Your task to perform on an android device: delete location history Image 0: 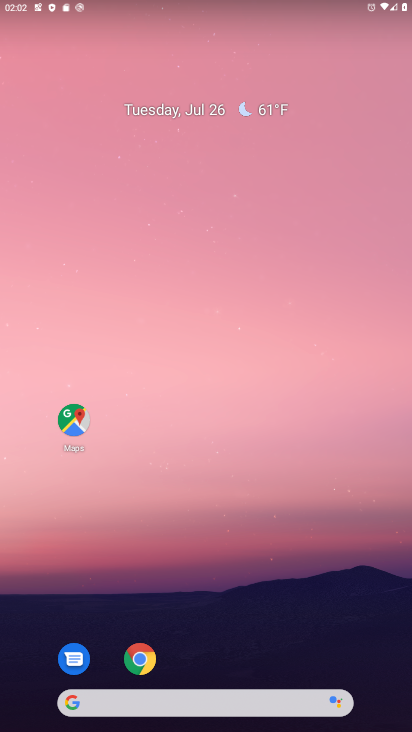
Step 0: drag from (300, 616) to (172, 149)
Your task to perform on an android device: delete location history Image 1: 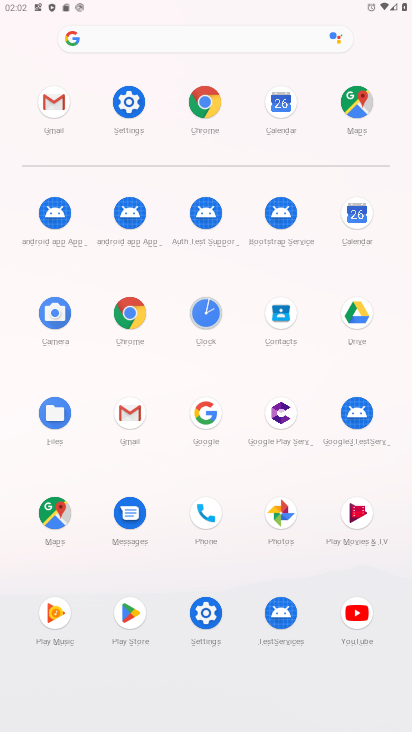
Step 1: click (362, 106)
Your task to perform on an android device: delete location history Image 2: 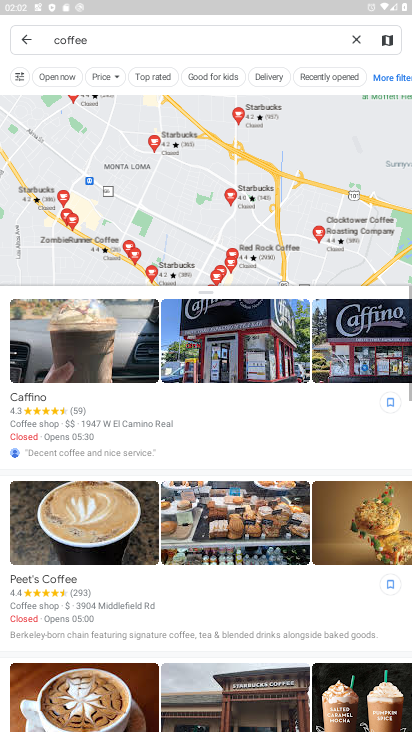
Step 2: click (19, 40)
Your task to perform on an android device: delete location history Image 3: 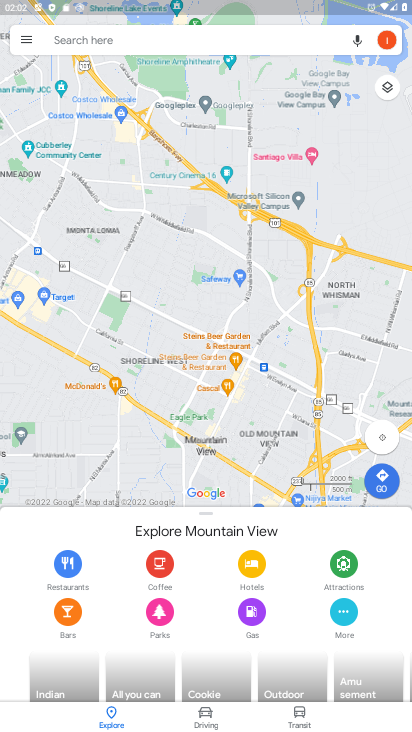
Step 3: click (30, 37)
Your task to perform on an android device: delete location history Image 4: 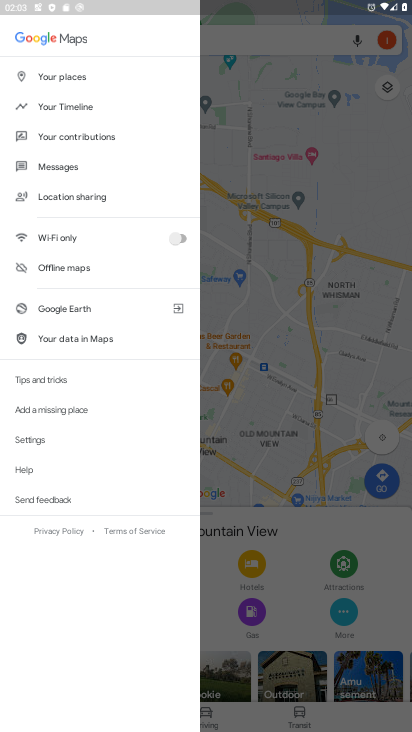
Step 4: click (25, 439)
Your task to perform on an android device: delete location history Image 5: 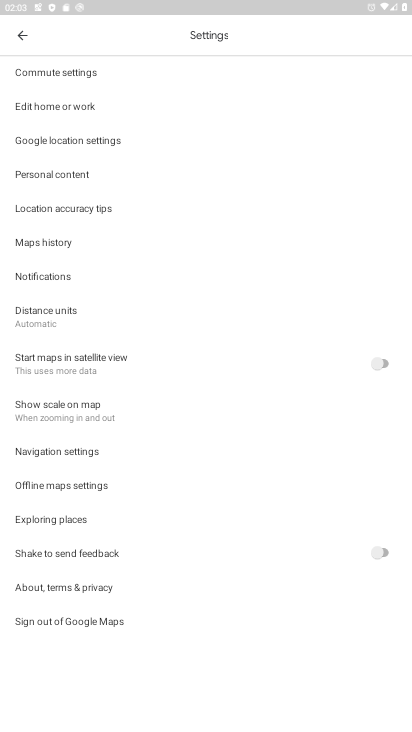
Step 5: click (58, 241)
Your task to perform on an android device: delete location history Image 6: 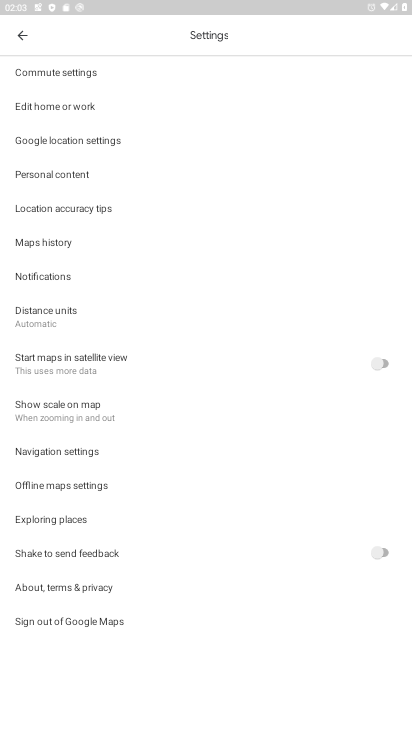
Step 6: click (66, 239)
Your task to perform on an android device: delete location history Image 7: 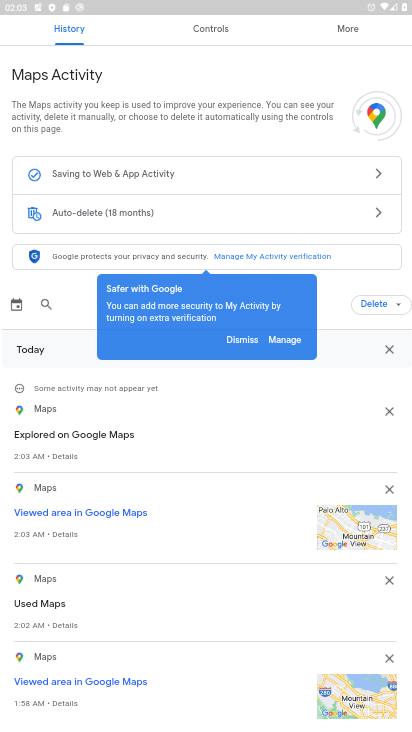
Step 7: click (397, 304)
Your task to perform on an android device: delete location history Image 8: 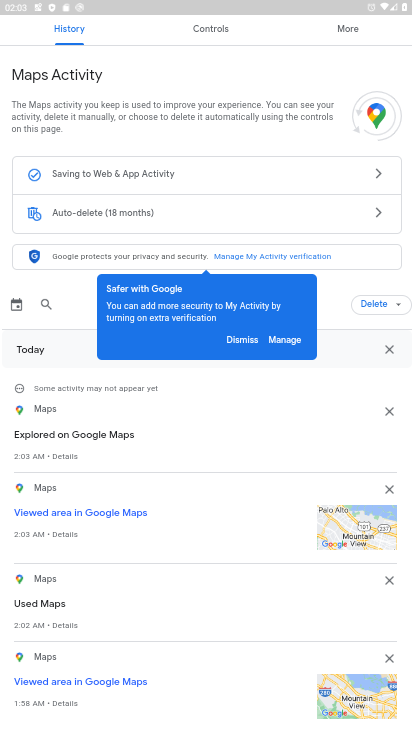
Step 8: click (238, 347)
Your task to perform on an android device: delete location history Image 9: 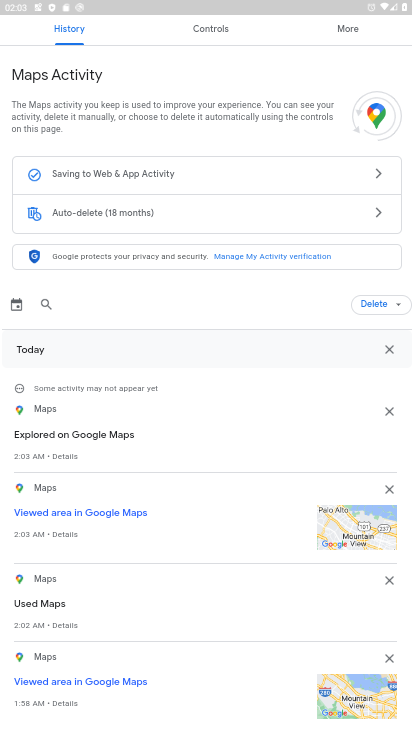
Step 9: click (389, 303)
Your task to perform on an android device: delete location history Image 10: 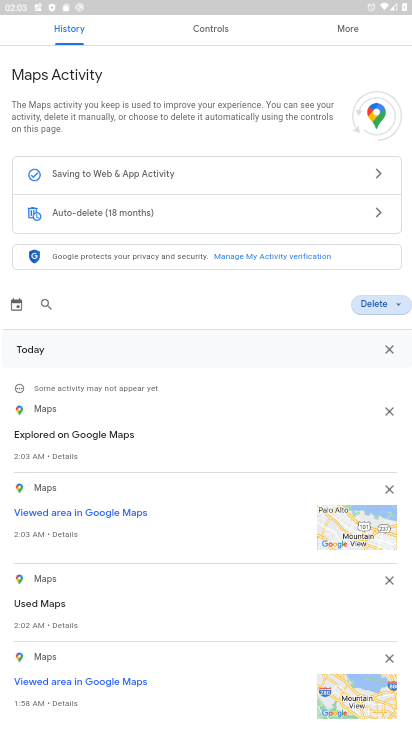
Step 10: click (397, 303)
Your task to perform on an android device: delete location history Image 11: 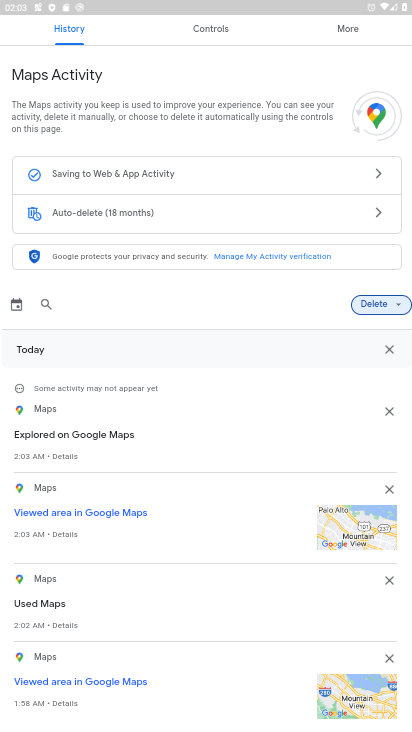
Step 11: click (400, 306)
Your task to perform on an android device: delete location history Image 12: 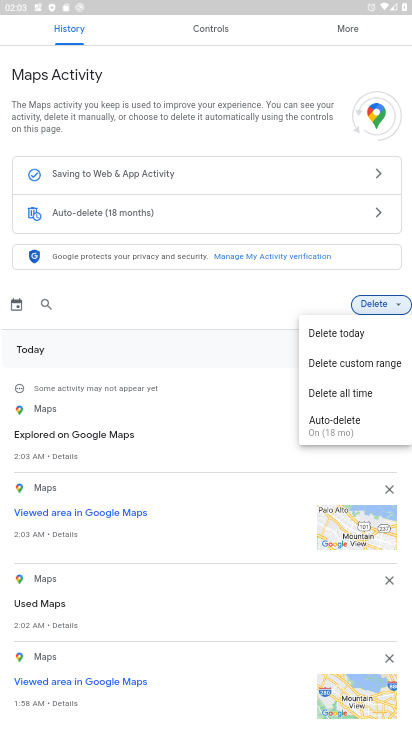
Step 12: click (336, 387)
Your task to perform on an android device: delete location history Image 13: 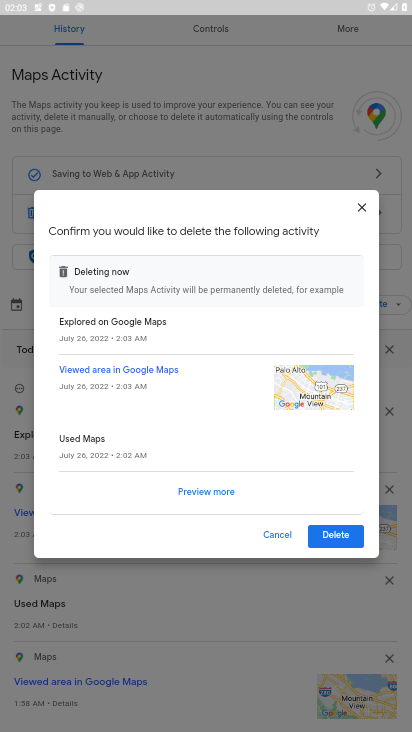
Step 13: click (338, 540)
Your task to perform on an android device: delete location history Image 14: 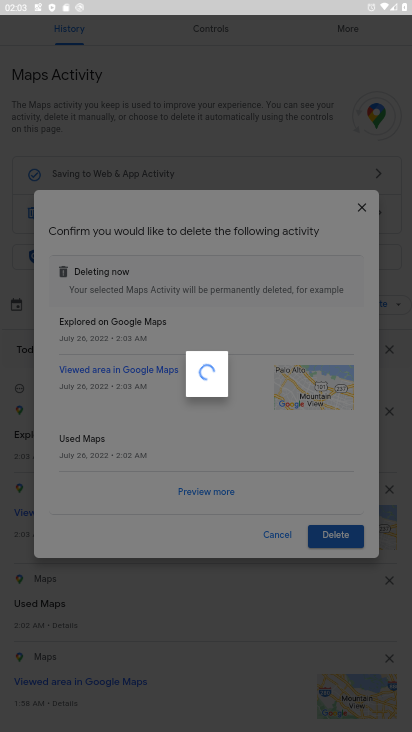
Step 14: click (329, 537)
Your task to perform on an android device: delete location history Image 15: 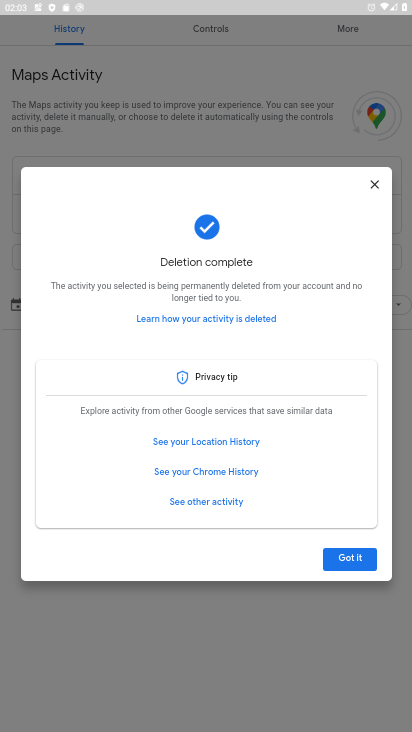
Step 15: task complete